Your task to perform on an android device: What is the speed of a plane? Image 0: 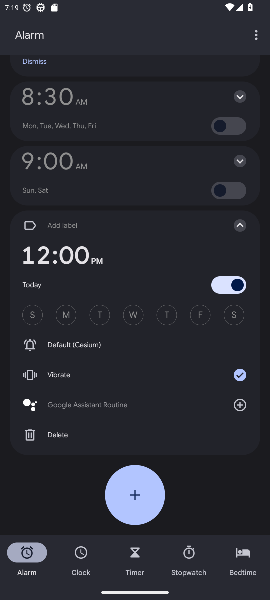
Step 0: press home button
Your task to perform on an android device: What is the speed of a plane? Image 1: 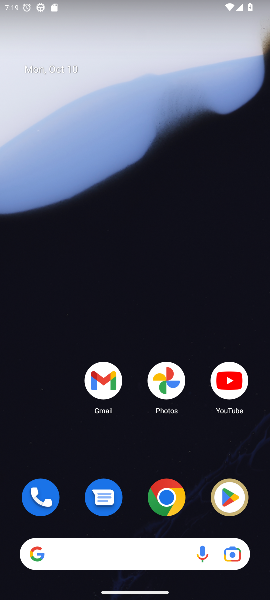
Step 1: drag from (132, 468) to (149, 152)
Your task to perform on an android device: What is the speed of a plane? Image 2: 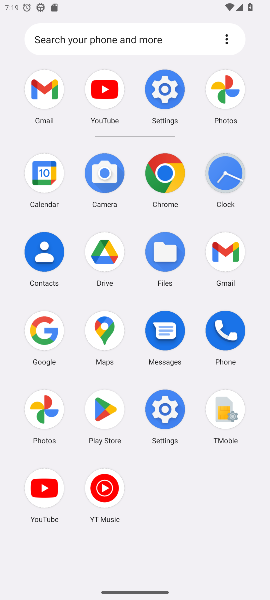
Step 2: click (42, 327)
Your task to perform on an android device: What is the speed of a plane? Image 3: 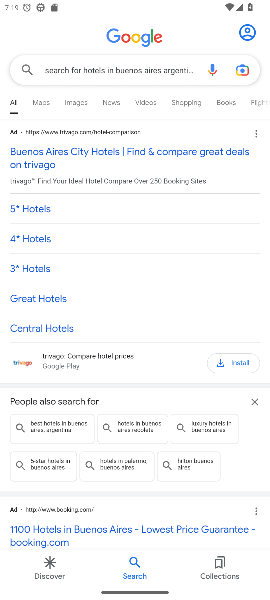
Step 3: click (99, 63)
Your task to perform on an android device: What is the speed of a plane? Image 4: 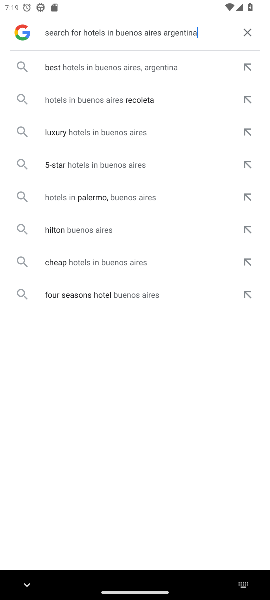
Step 4: click (243, 33)
Your task to perform on an android device: What is the speed of a plane? Image 5: 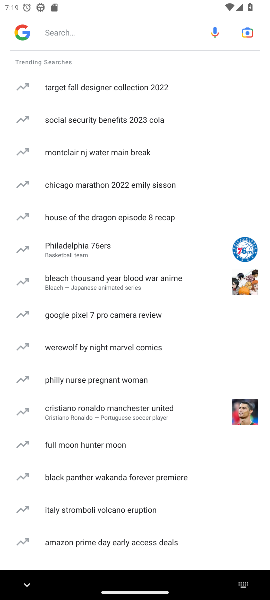
Step 5: click (85, 27)
Your task to perform on an android device: What is the speed of a plane? Image 6: 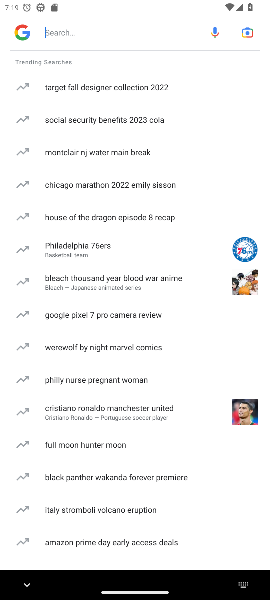
Step 6: type "What is the speed of a plane? "
Your task to perform on an android device: What is the speed of a plane? Image 7: 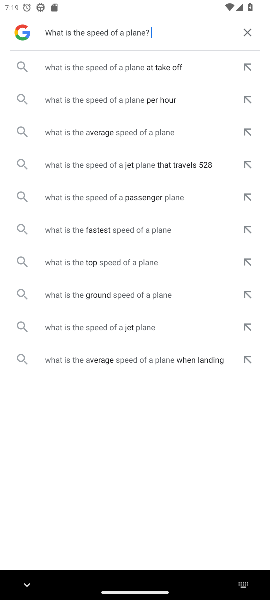
Step 7: click (146, 65)
Your task to perform on an android device: What is the speed of a plane? Image 8: 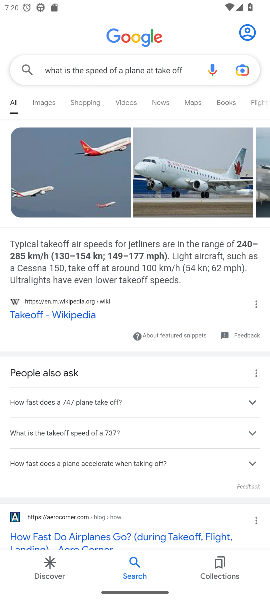
Step 8: click (127, 501)
Your task to perform on an android device: What is the speed of a plane? Image 9: 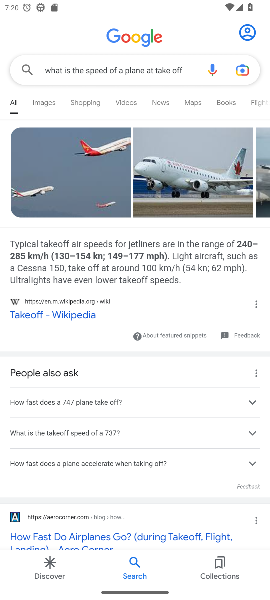
Step 9: task complete